Your task to perform on an android device: turn off notifications in google photos Image 0: 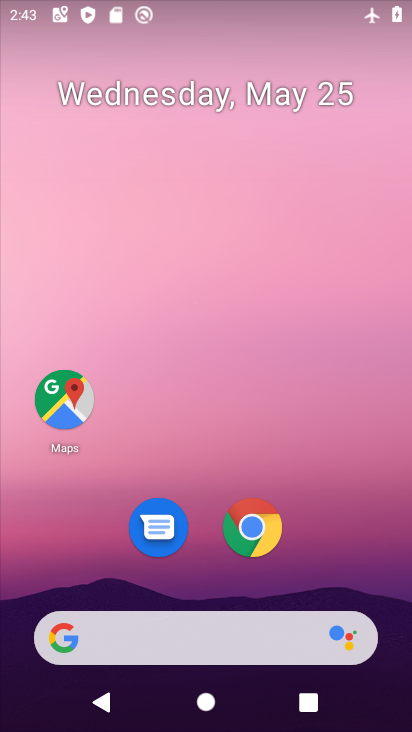
Step 0: drag from (206, 567) to (239, 187)
Your task to perform on an android device: turn off notifications in google photos Image 1: 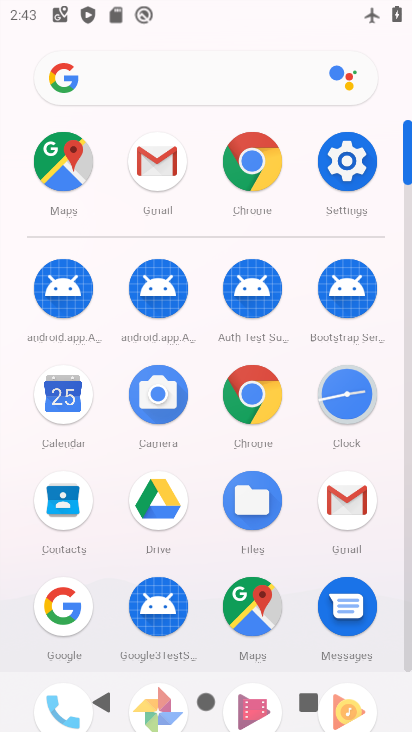
Step 1: drag from (210, 555) to (179, 209)
Your task to perform on an android device: turn off notifications in google photos Image 2: 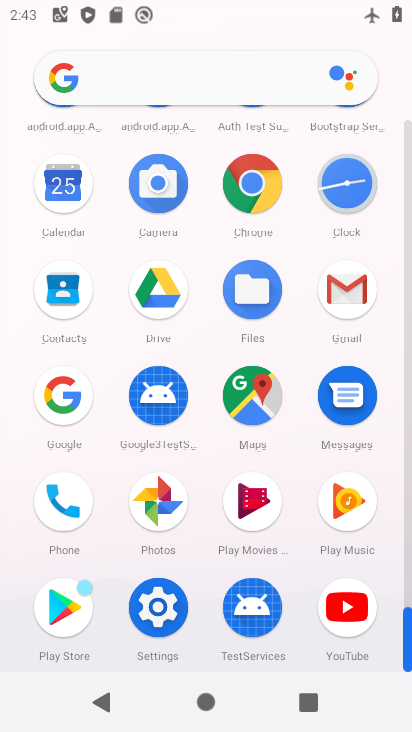
Step 2: drag from (206, 584) to (213, 274)
Your task to perform on an android device: turn off notifications in google photos Image 3: 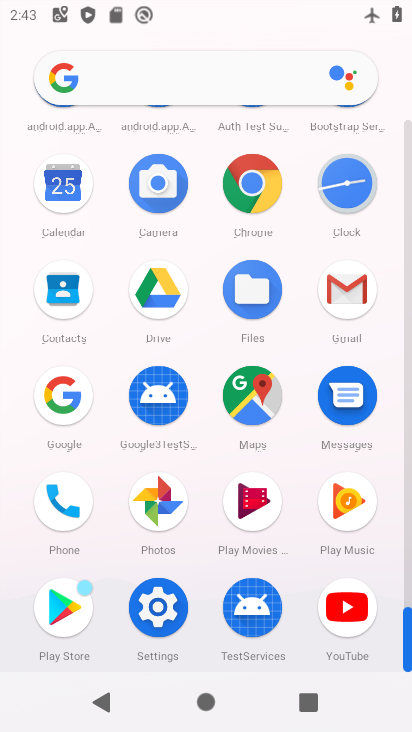
Step 3: click (153, 489)
Your task to perform on an android device: turn off notifications in google photos Image 4: 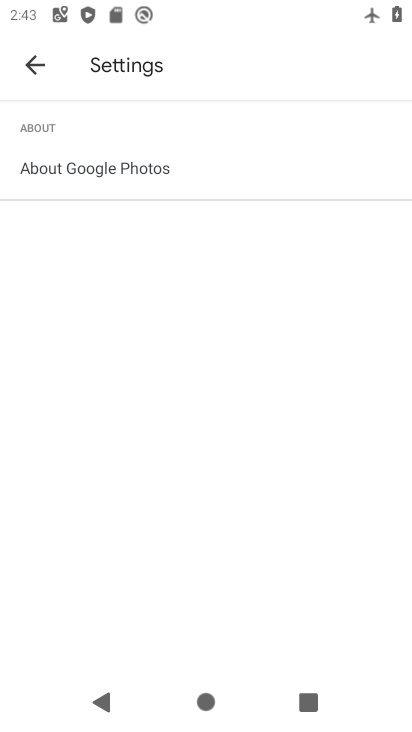
Step 4: click (34, 53)
Your task to perform on an android device: turn off notifications in google photos Image 5: 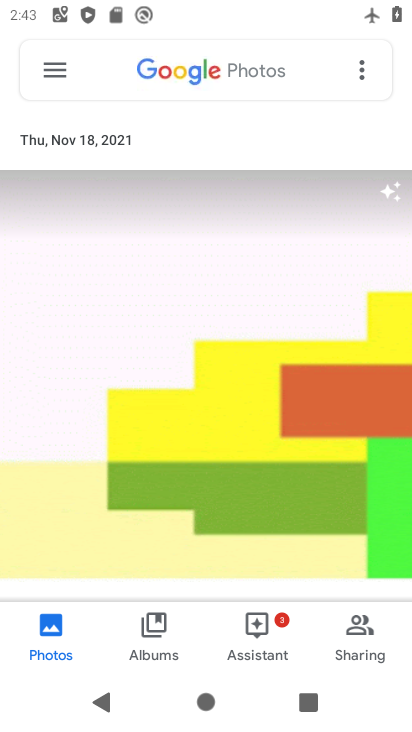
Step 5: click (45, 80)
Your task to perform on an android device: turn off notifications in google photos Image 6: 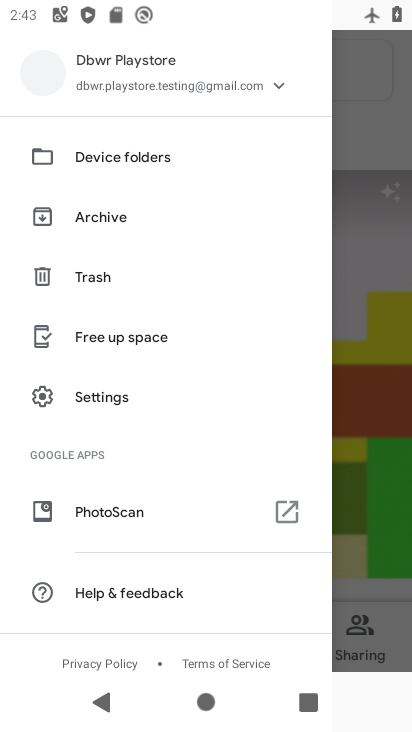
Step 6: drag from (214, 481) to (214, 189)
Your task to perform on an android device: turn off notifications in google photos Image 7: 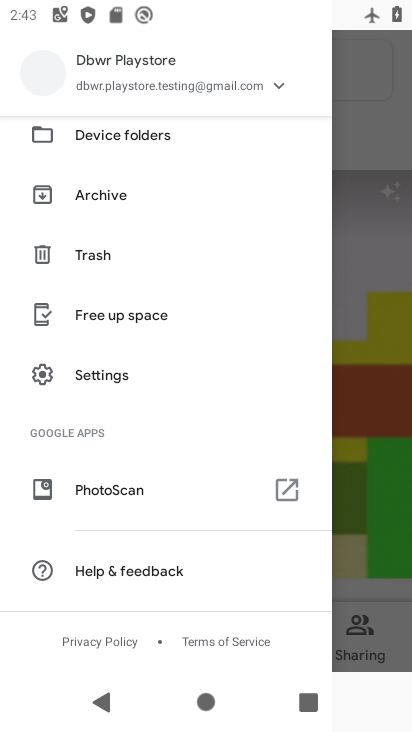
Step 7: click (109, 374)
Your task to perform on an android device: turn off notifications in google photos Image 8: 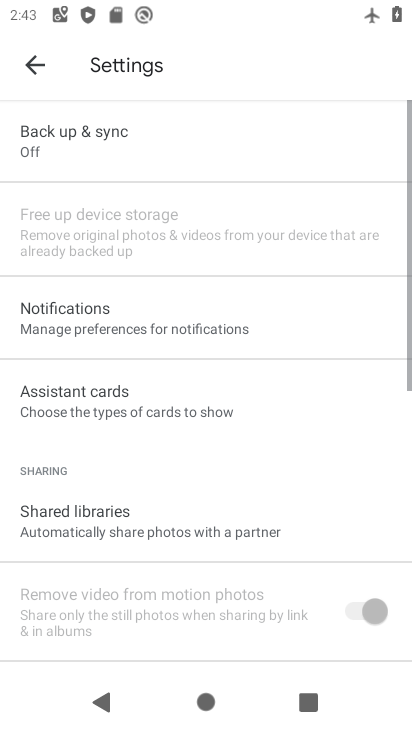
Step 8: drag from (206, 497) to (152, 178)
Your task to perform on an android device: turn off notifications in google photos Image 9: 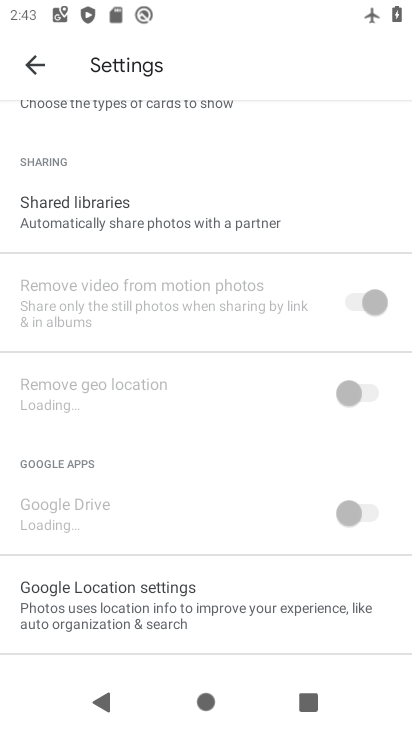
Step 9: drag from (117, 216) to (216, 727)
Your task to perform on an android device: turn off notifications in google photos Image 10: 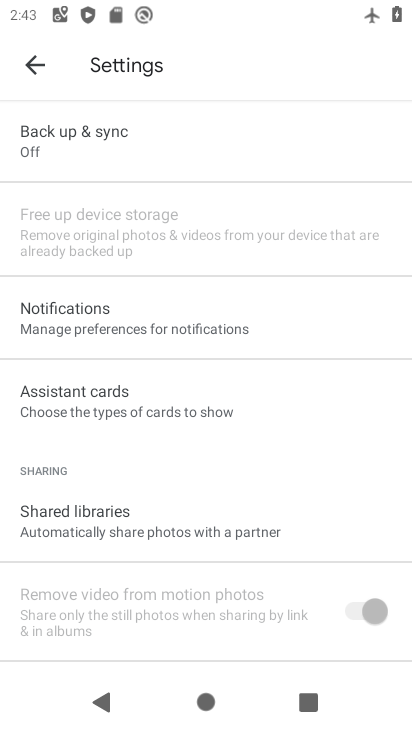
Step 10: drag from (154, 204) to (245, 633)
Your task to perform on an android device: turn off notifications in google photos Image 11: 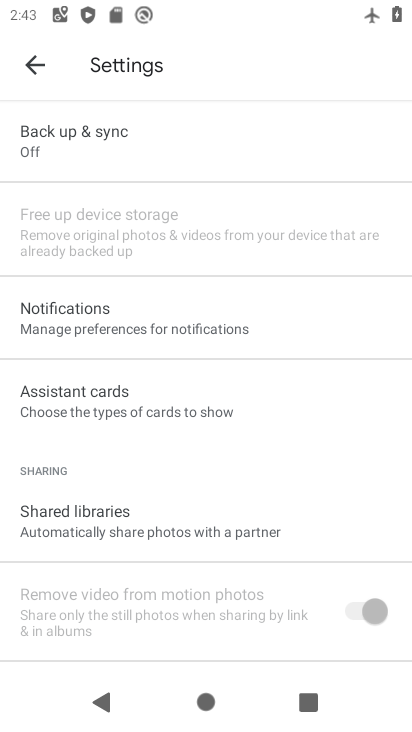
Step 11: click (101, 340)
Your task to perform on an android device: turn off notifications in google photos Image 12: 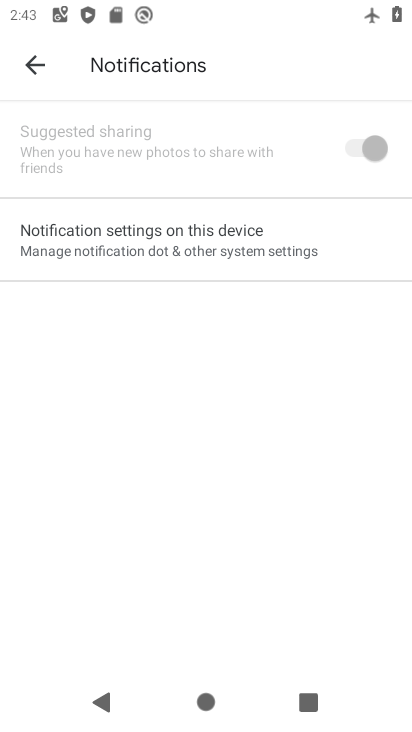
Step 12: click (155, 231)
Your task to perform on an android device: turn off notifications in google photos Image 13: 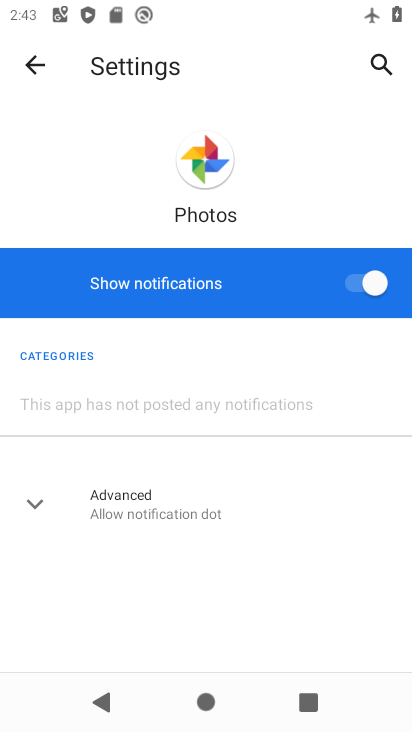
Step 13: click (359, 294)
Your task to perform on an android device: turn off notifications in google photos Image 14: 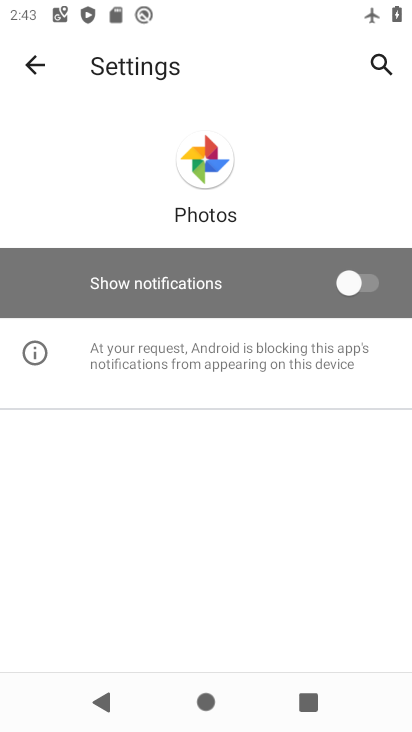
Step 14: task complete